Your task to perform on an android device: change notification settings in the gmail app Image 0: 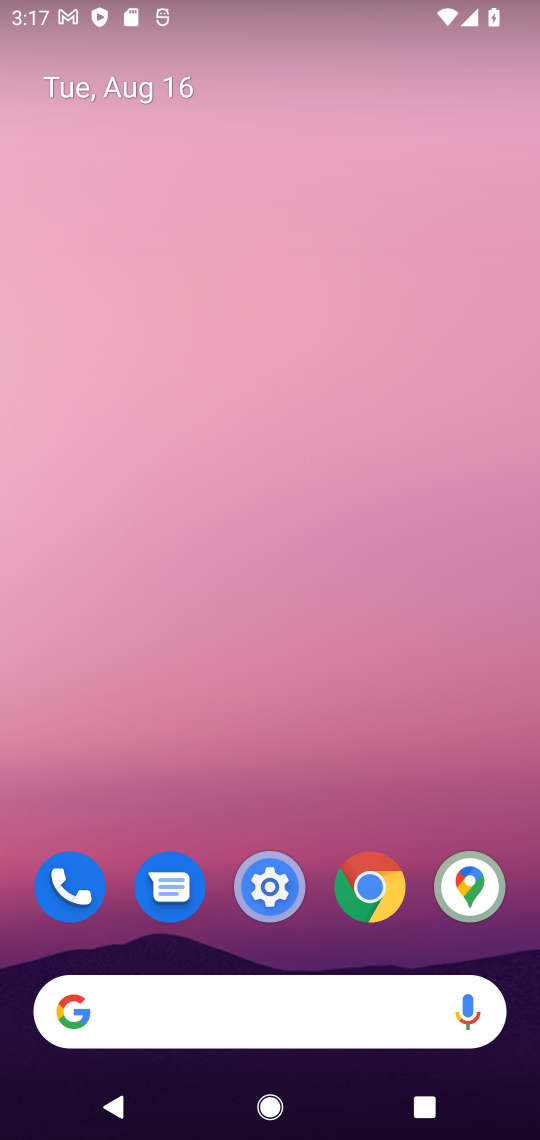
Step 0: drag from (368, 778) to (225, 277)
Your task to perform on an android device: change notification settings in the gmail app Image 1: 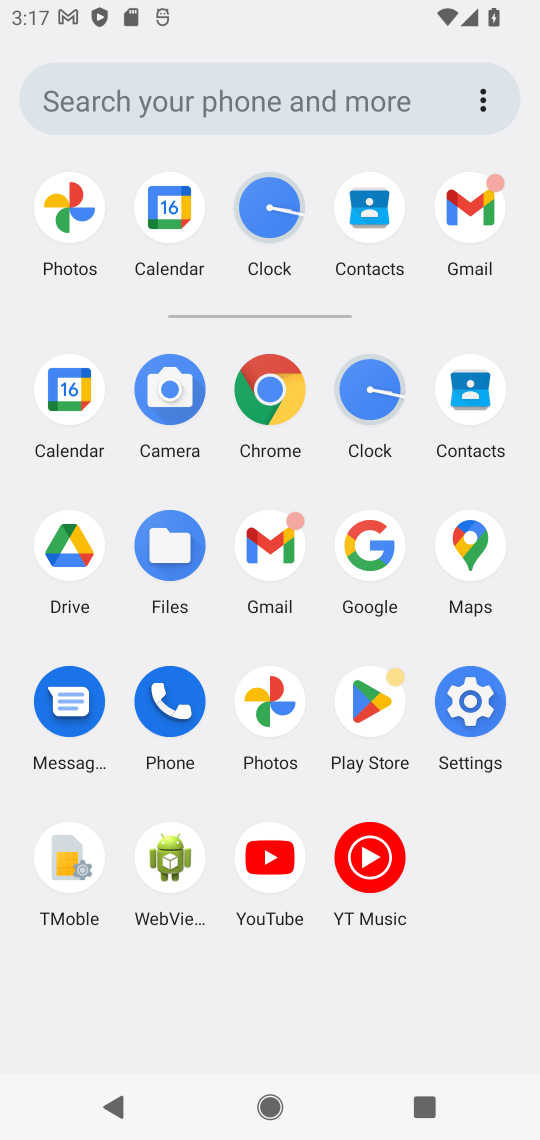
Step 1: click (276, 525)
Your task to perform on an android device: change notification settings in the gmail app Image 2: 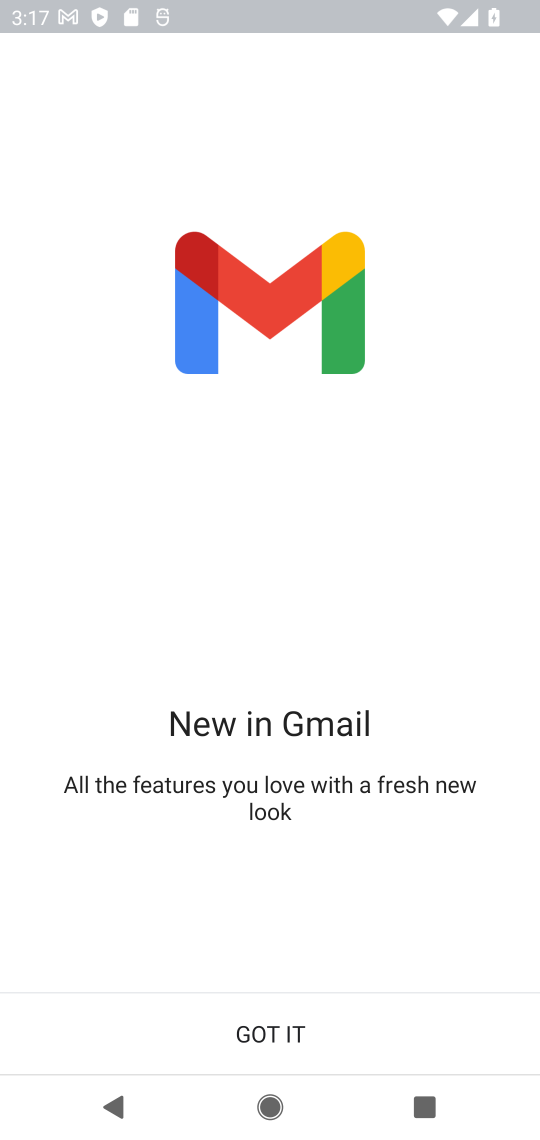
Step 2: click (292, 1064)
Your task to perform on an android device: change notification settings in the gmail app Image 3: 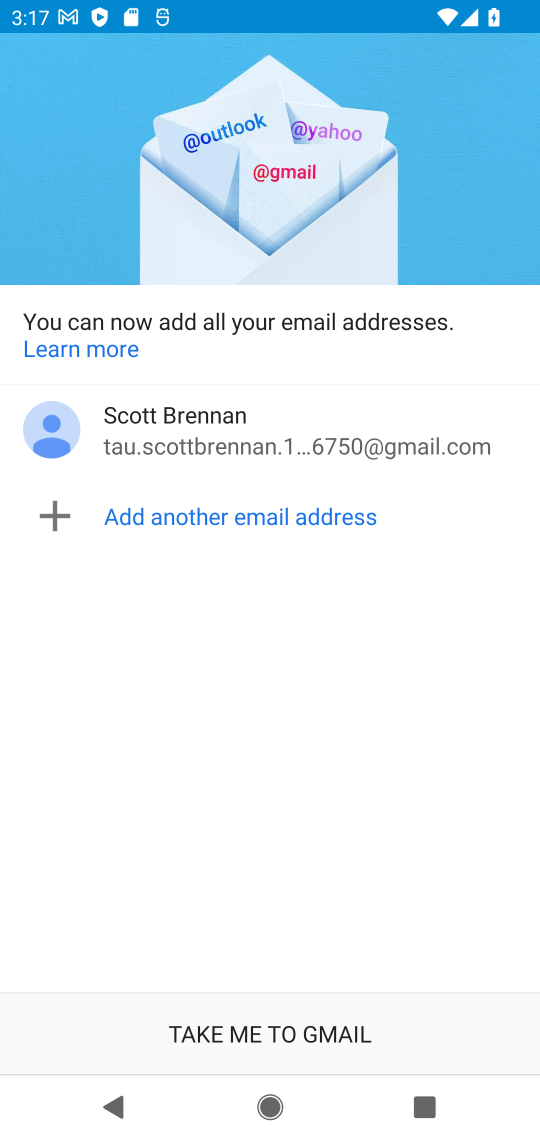
Step 3: click (292, 1048)
Your task to perform on an android device: change notification settings in the gmail app Image 4: 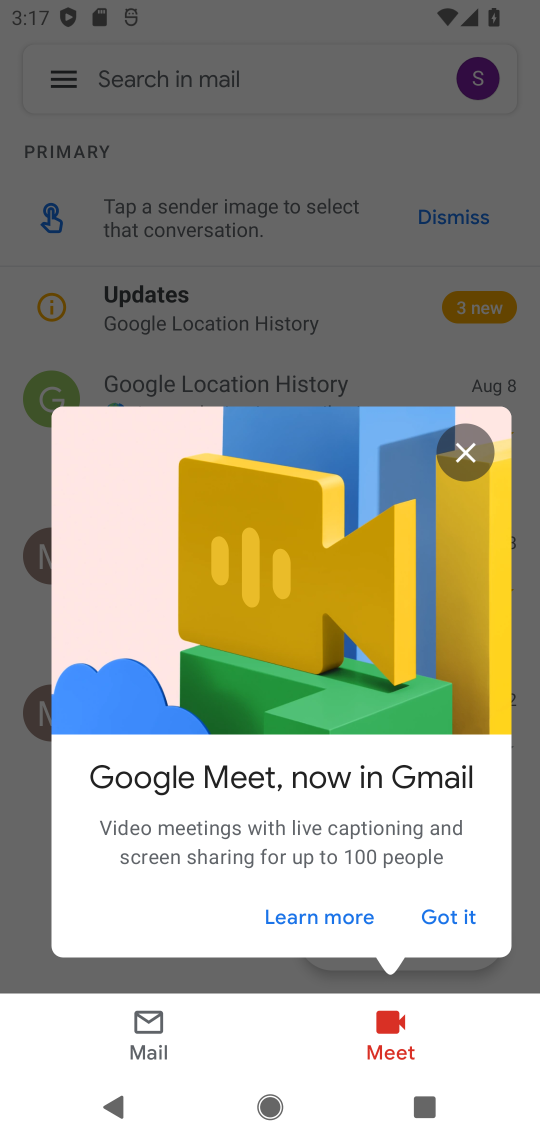
Step 4: click (458, 905)
Your task to perform on an android device: change notification settings in the gmail app Image 5: 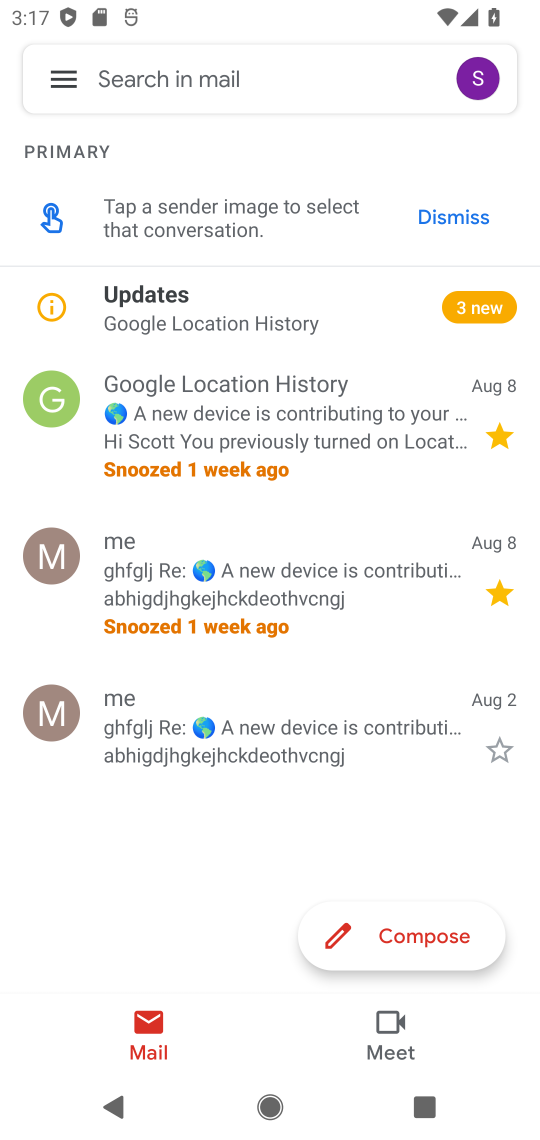
Step 5: click (45, 85)
Your task to perform on an android device: change notification settings in the gmail app Image 6: 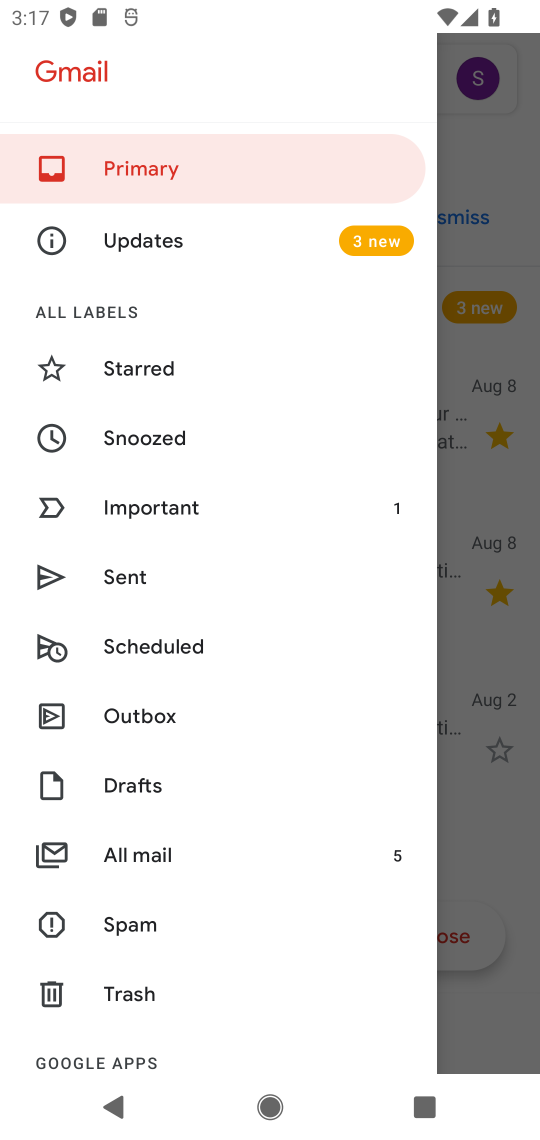
Step 6: drag from (213, 962) to (240, 315)
Your task to perform on an android device: change notification settings in the gmail app Image 7: 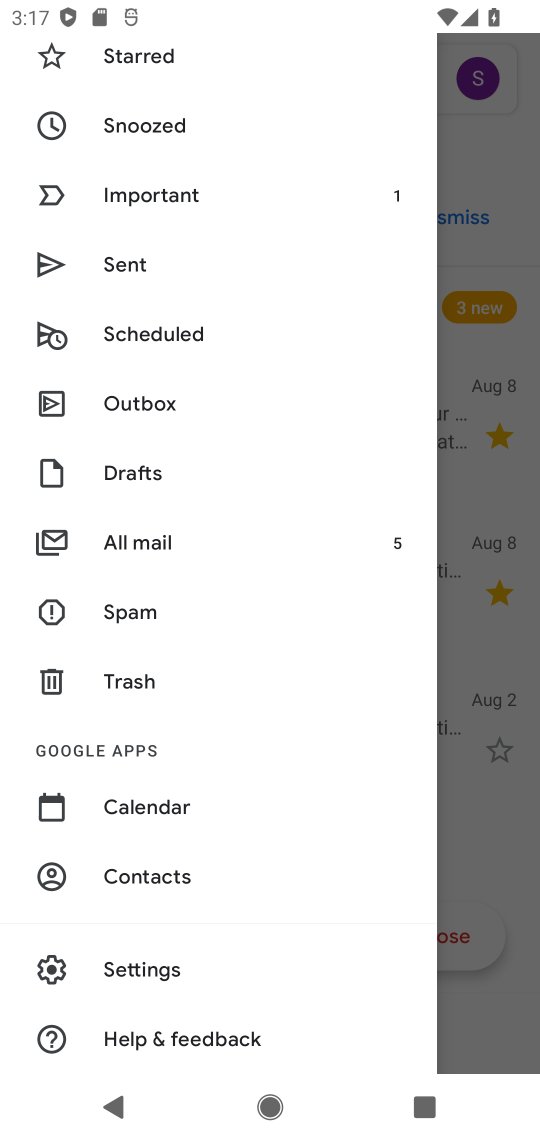
Step 7: click (150, 977)
Your task to perform on an android device: change notification settings in the gmail app Image 8: 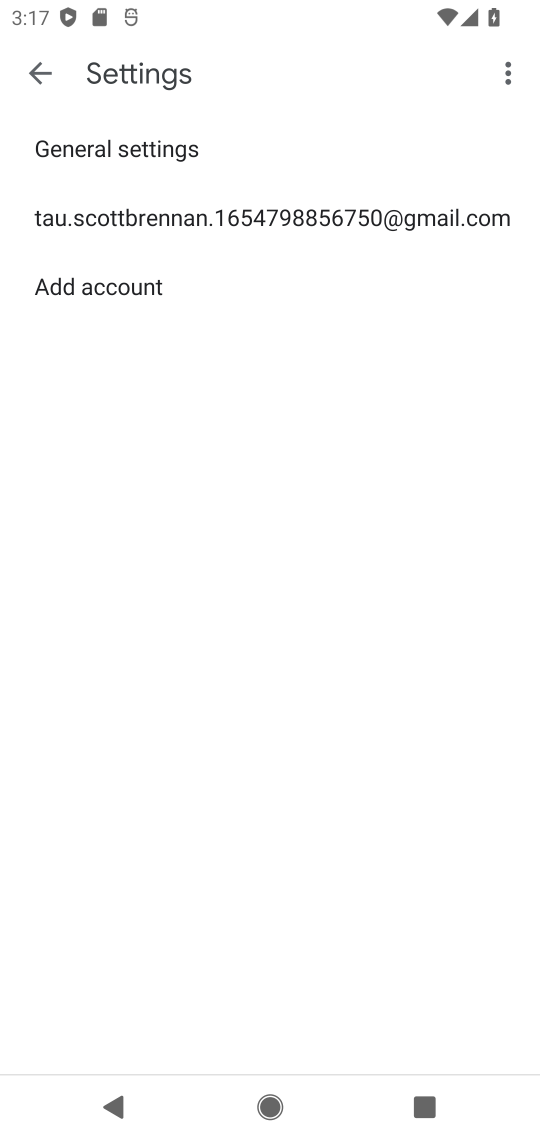
Step 8: click (264, 211)
Your task to perform on an android device: change notification settings in the gmail app Image 9: 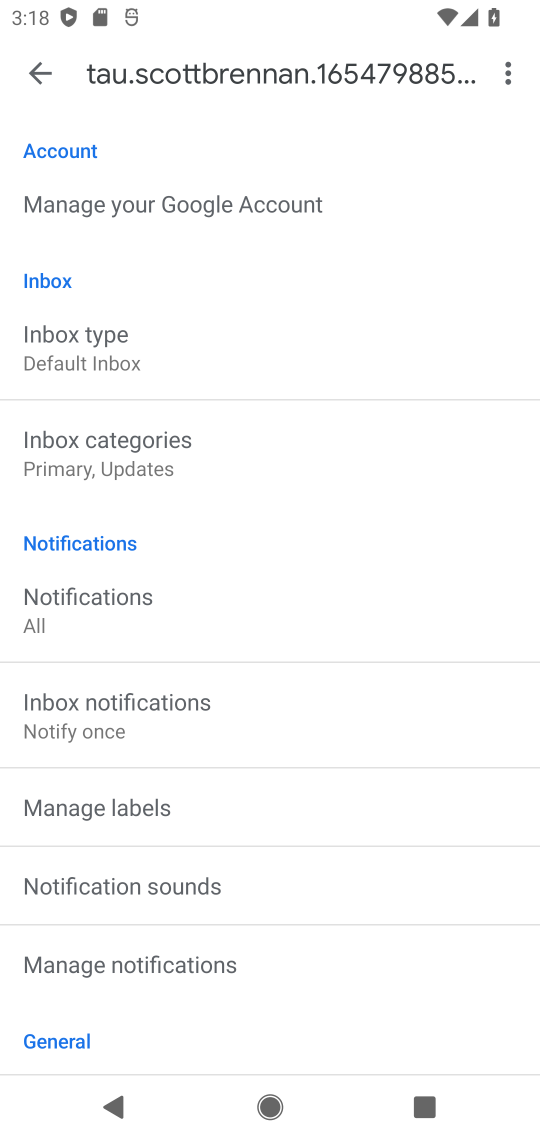
Step 9: click (203, 961)
Your task to perform on an android device: change notification settings in the gmail app Image 10: 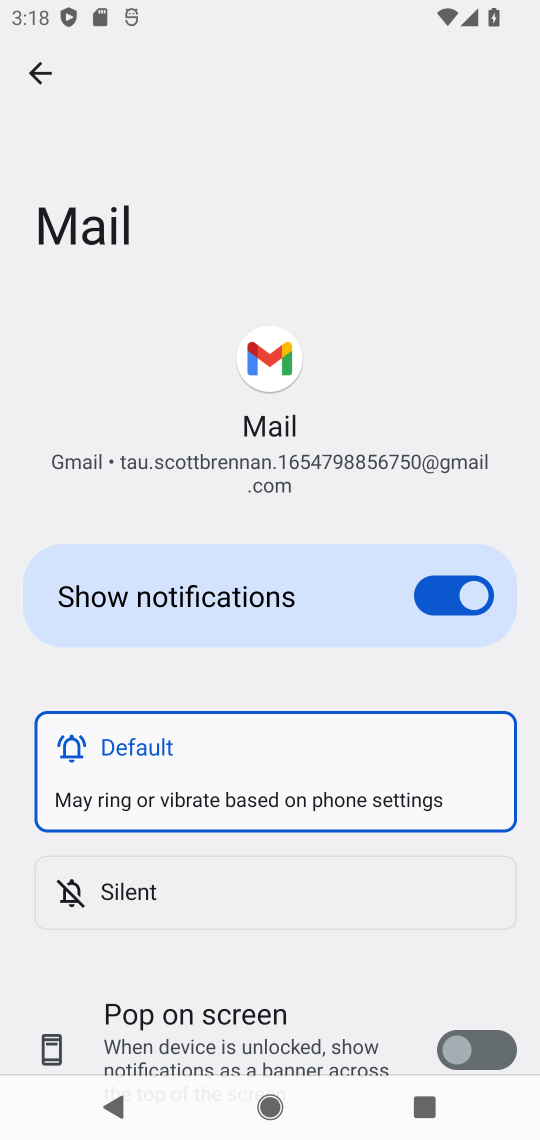
Step 10: click (446, 575)
Your task to perform on an android device: change notification settings in the gmail app Image 11: 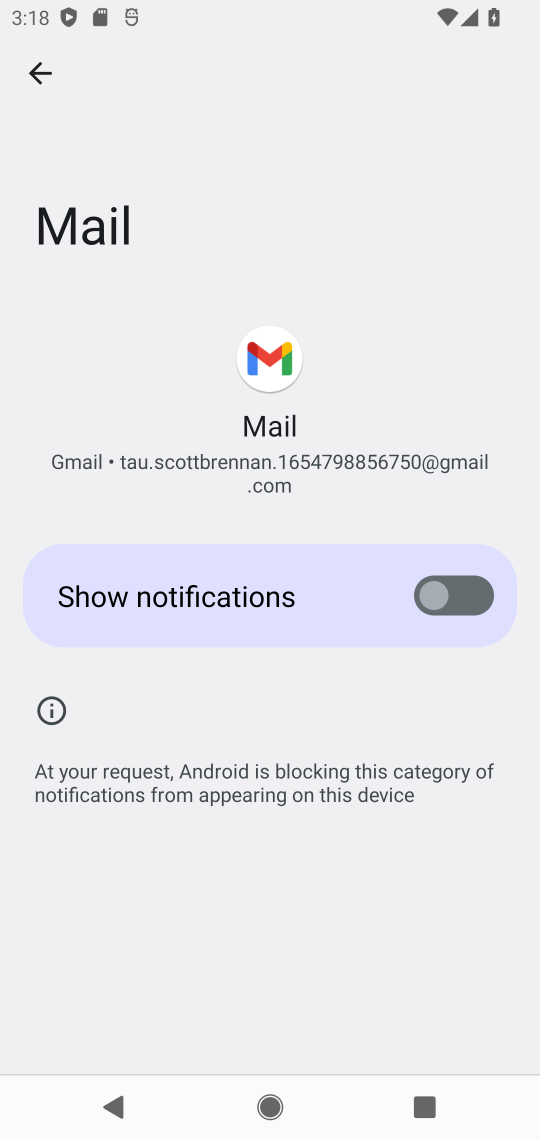
Step 11: task complete